Your task to perform on an android device: Open ESPN.com Image 0: 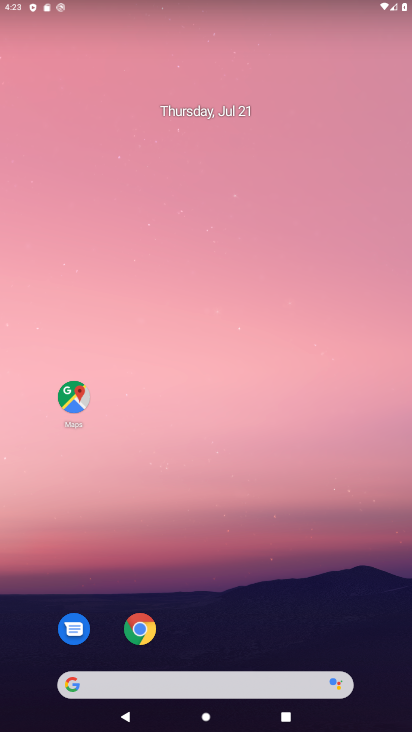
Step 0: press home button
Your task to perform on an android device: Open ESPN.com Image 1: 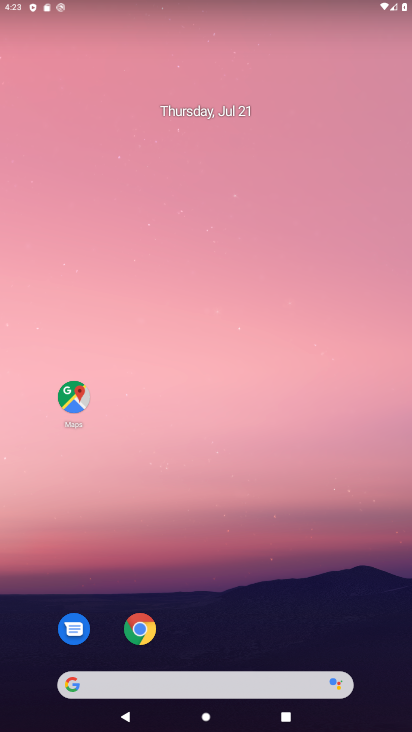
Step 1: drag from (222, 643) to (230, 7)
Your task to perform on an android device: Open ESPN.com Image 2: 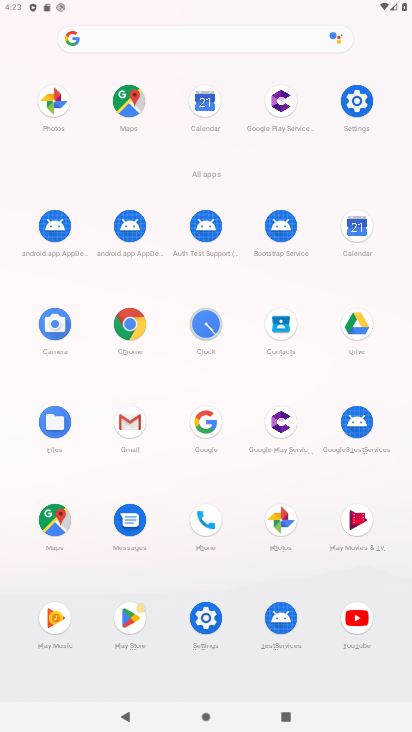
Step 2: click (130, 322)
Your task to perform on an android device: Open ESPN.com Image 3: 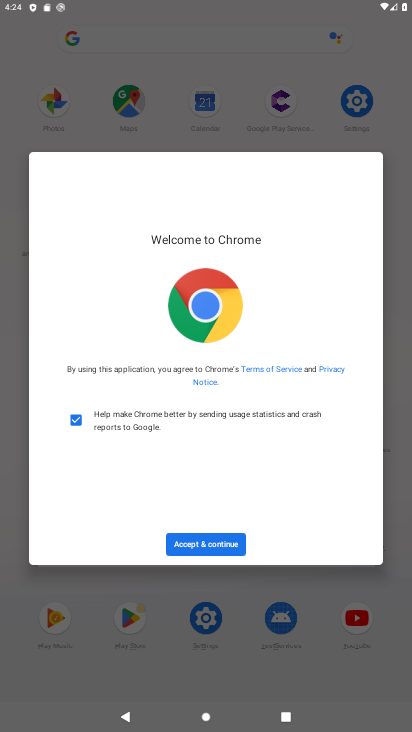
Step 3: click (197, 538)
Your task to perform on an android device: Open ESPN.com Image 4: 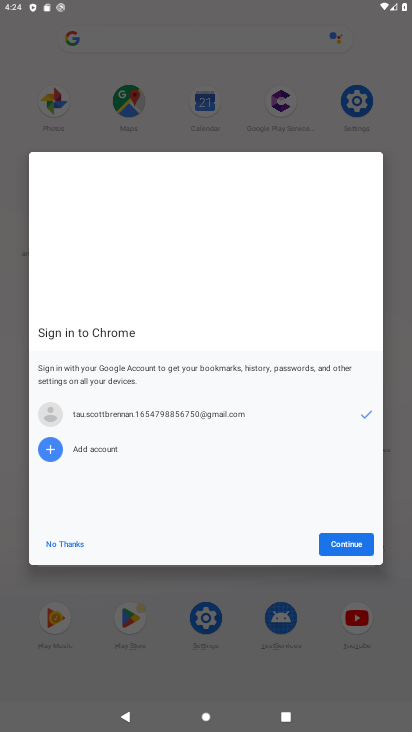
Step 4: click (356, 544)
Your task to perform on an android device: Open ESPN.com Image 5: 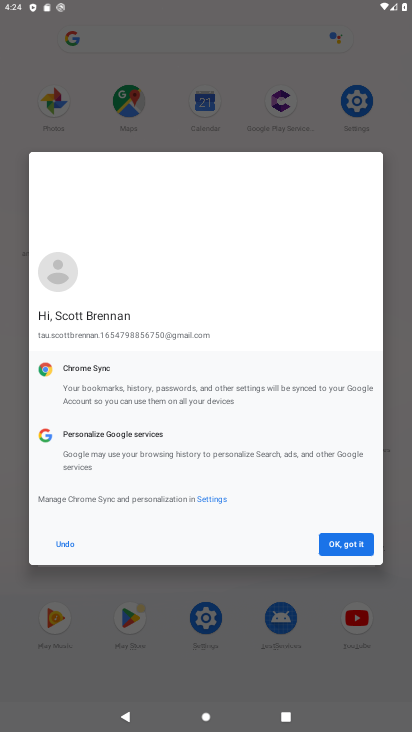
Step 5: click (364, 543)
Your task to perform on an android device: Open ESPN.com Image 6: 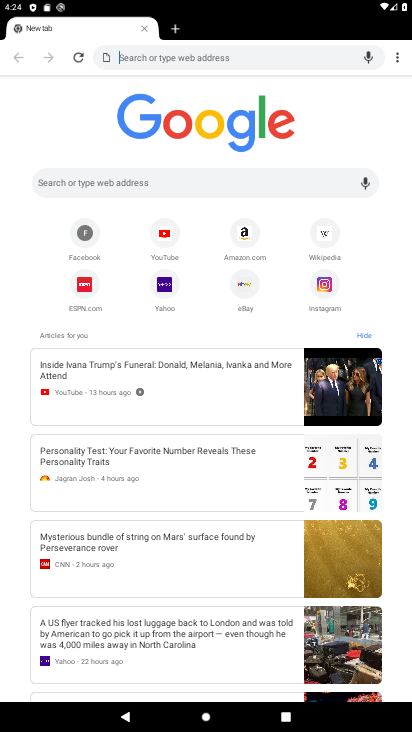
Step 6: click (87, 286)
Your task to perform on an android device: Open ESPN.com Image 7: 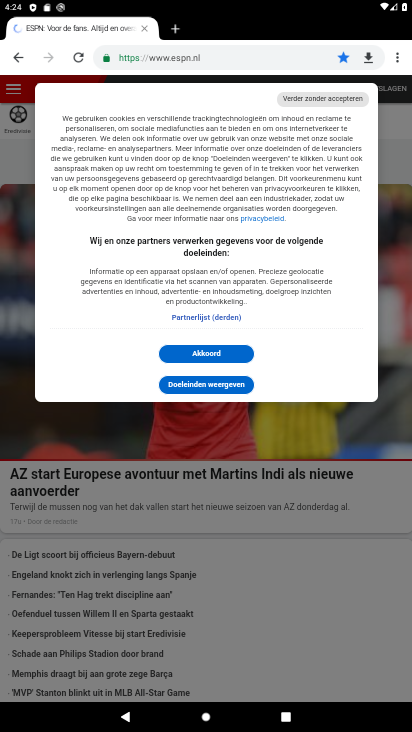
Step 7: click (198, 341)
Your task to perform on an android device: Open ESPN.com Image 8: 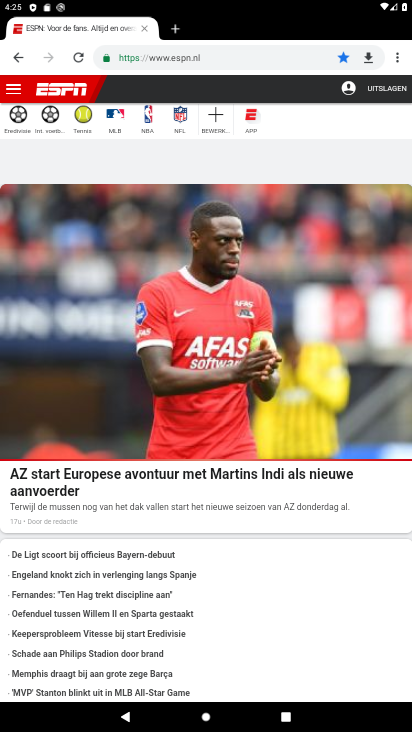
Step 8: task complete